Your task to perform on an android device: choose inbox layout in the gmail app Image 0: 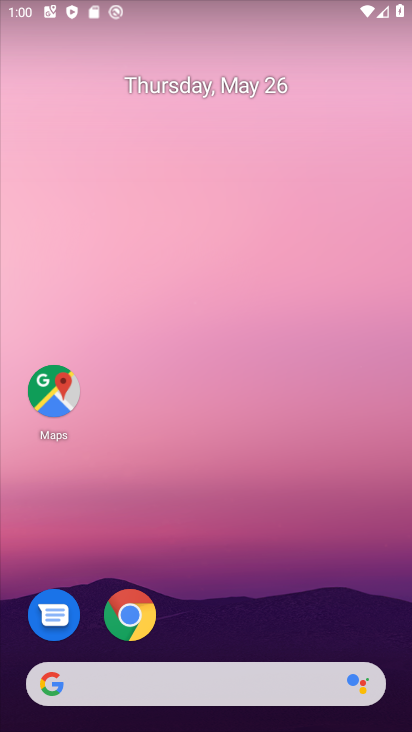
Step 0: drag from (318, 612) to (345, 110)
Your task to perform on an android device: choose inbox layout in the gmail app Image 1: 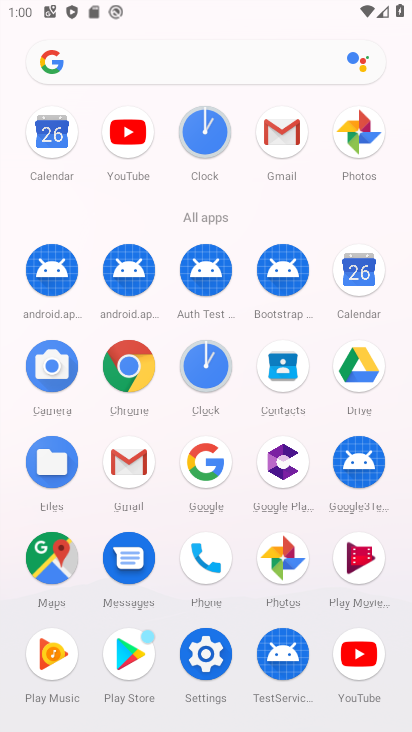
Step 1: click (283, 137)
Your task to perform on an android device: choose inbox layout in the gmail app Image 2: 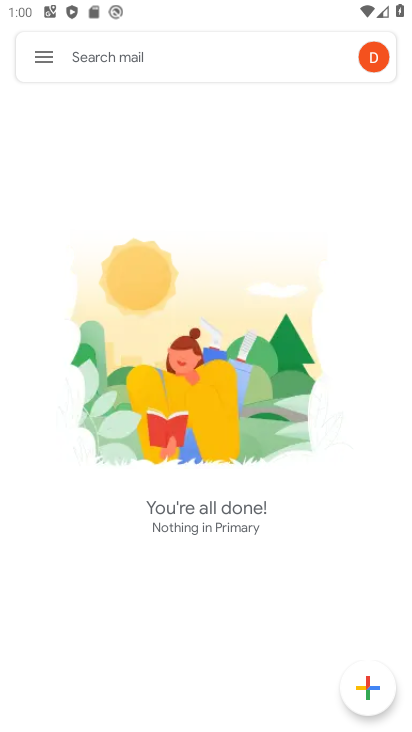
Step 2: click (41, 51)
Your task to perform on an android device: choose inbox layout in the gmail app Image 3: 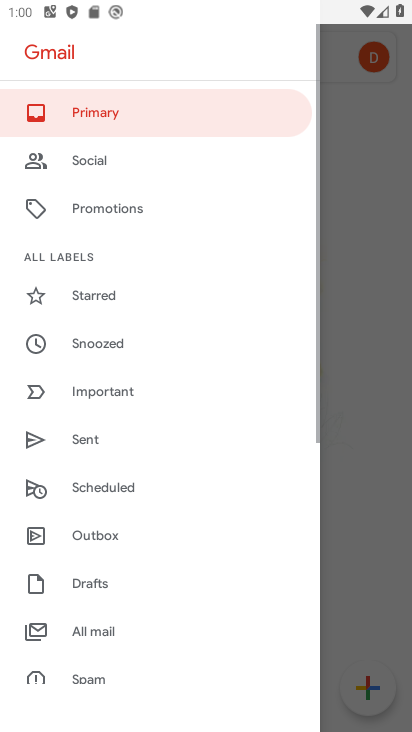
Step 3: drag from (137, 709) to (209, 92)
Your task to perform on an android device: choose inbox layout in the gmail app Image 4: 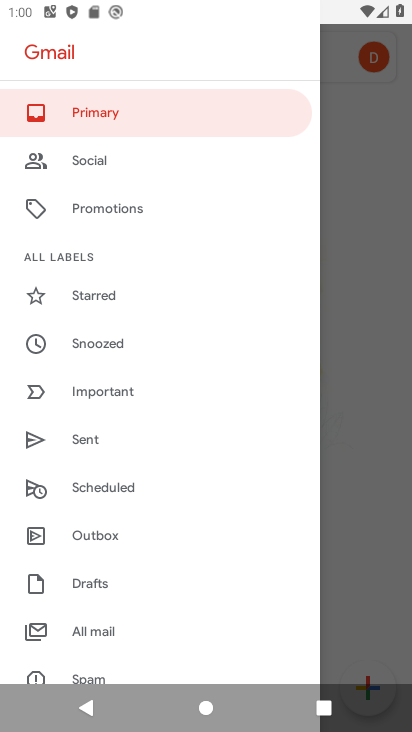
Step 4: drag from (118, 551) to (180, 4)
Your task to perform on an android device: choose inbox layout in the gmail app Image 5: 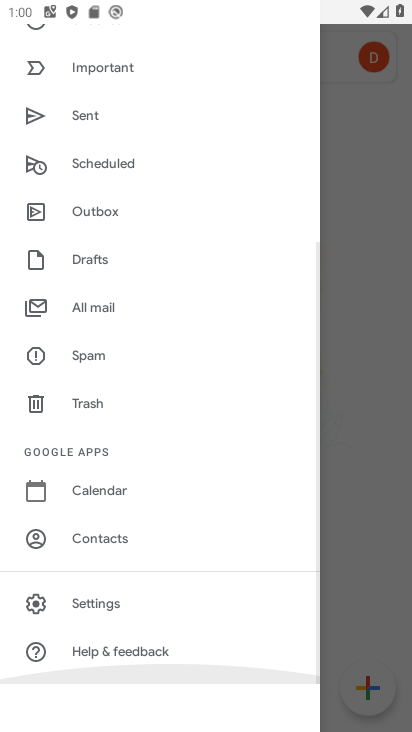
Step 5: click (99, 602)
Your task to perform on an android device: choose inbox layout in the gmail app Image 6: 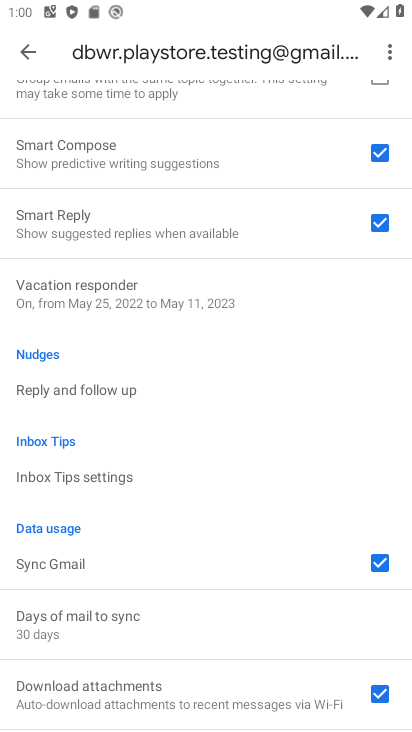
Step 6: drag from (138, 212) to (171, 721)
Your task to perform on an android device: choose inbox layout in the gmail app Image 7: 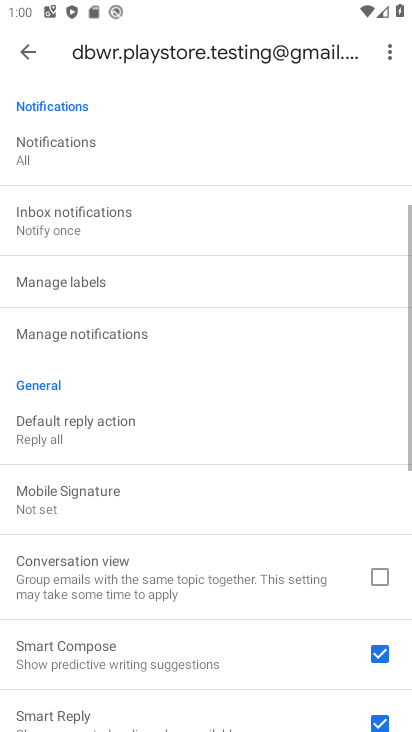
Step 7: drag from (199, 292) to (189, 724)
Your task to perform on an android device: choose inbox layout in the gmail app Image 8: 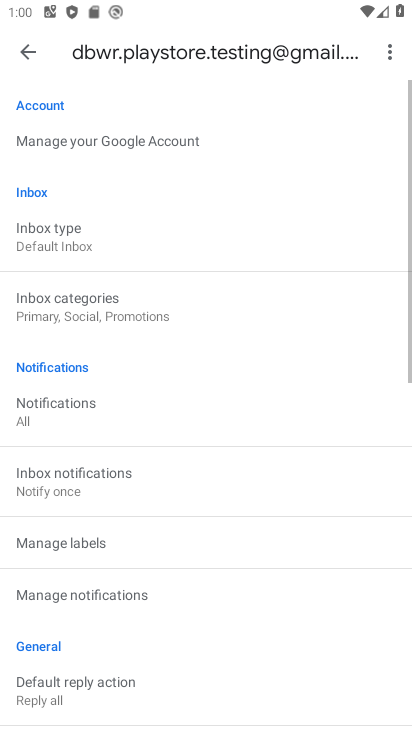
Step 8: click (53, 233)
Your task to perform on an android device: choose inbox layout in the gmail app Image 9: 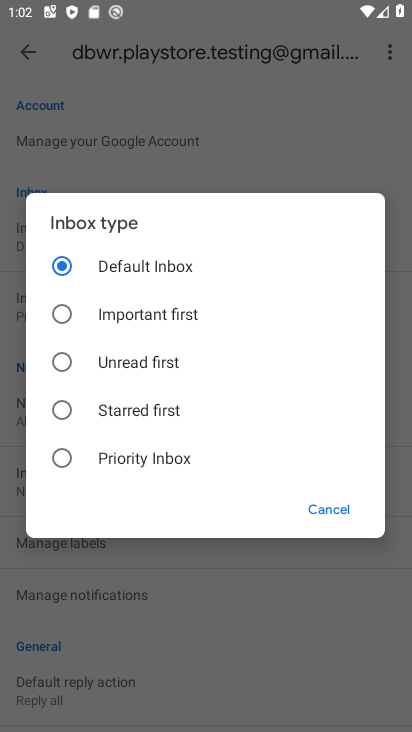
Step 9: click (66, 307)
Your task to perform on an android device: choose inbox layout in the gmail app Image 10: 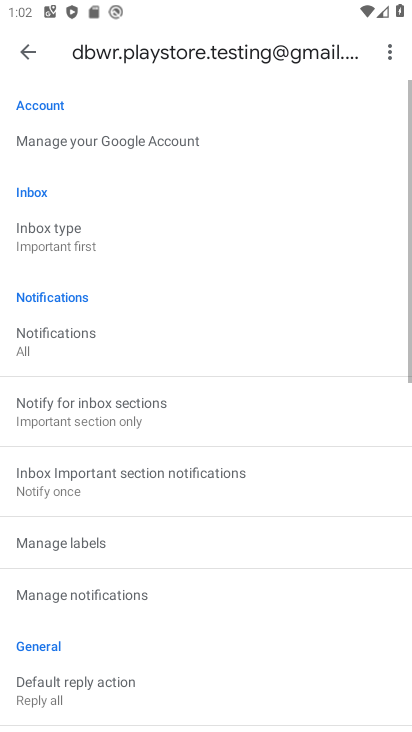
Step 10: task complete